Your task to perform on an android device: Go to privacy settings Image 0: 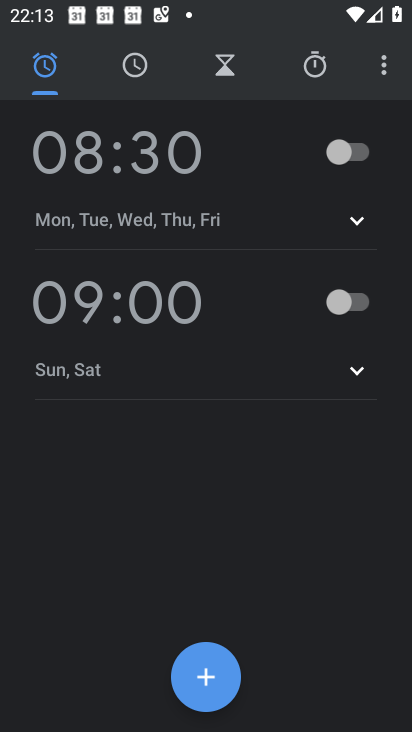
Step 0: press home button
Your task to perform on an android device: Go to privacy settings Image 1: 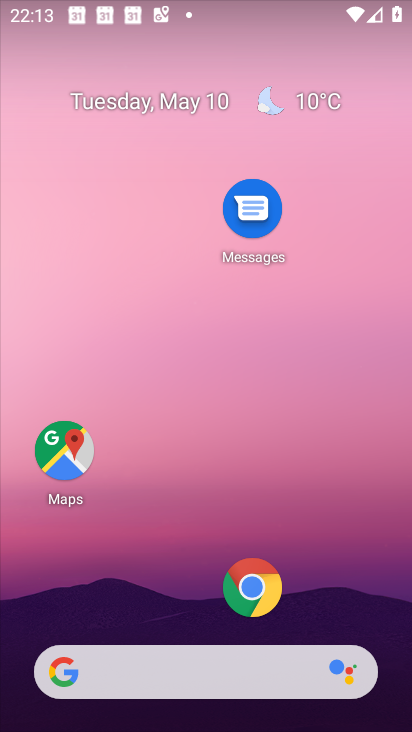
Step 1: drag from (177, 580) to (176, 4)
Your task to perform on an android device: Go to privacy settings Image 2: 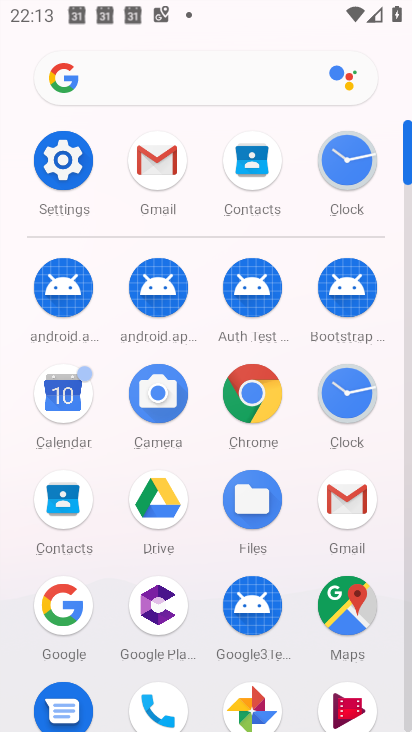
Step 2: click (79, 177)
Your task to perform on an android device: Go to privacy settings Image 3: 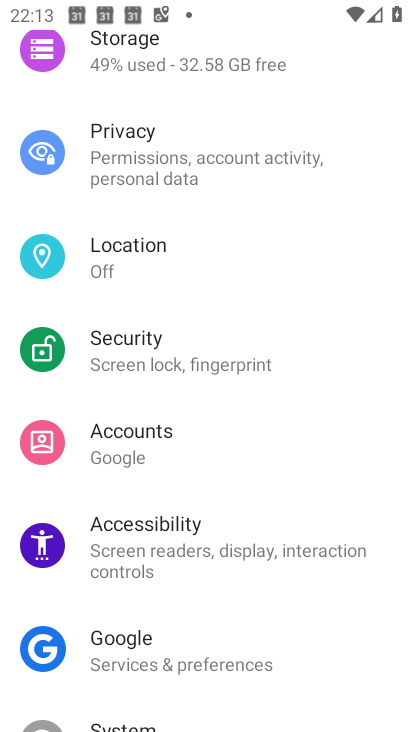
Step 3: click (151, 163)
Your task to perform on an android device: Go to privacy settings Image 4: 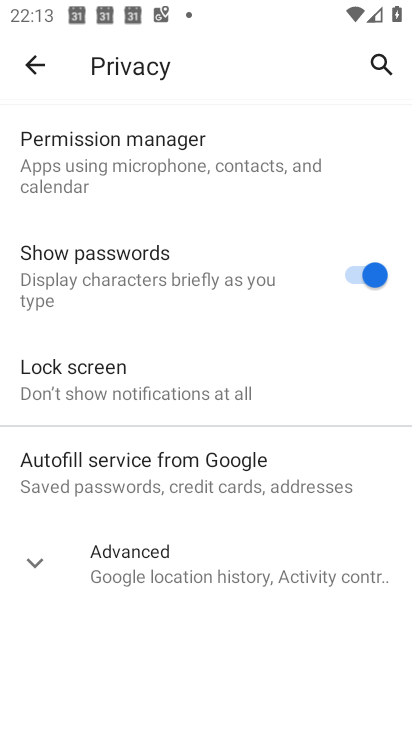
Step 4: task complete